Your task to perform on an android device: When is my next appointment? Image 0: 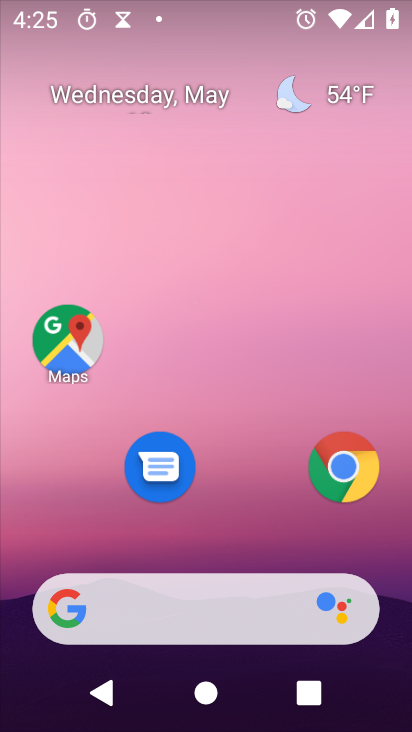
Step 0: drag from (279, 493) to (220, 26)
Your task to perform on an android device: When is my next appointment? Image 1: 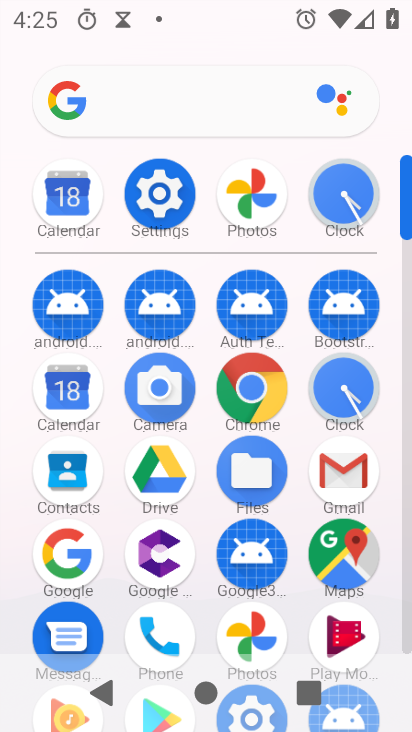
Step 1: click (85, 206)
Your task to perform on an android device: When is my next appointment? Image 2: 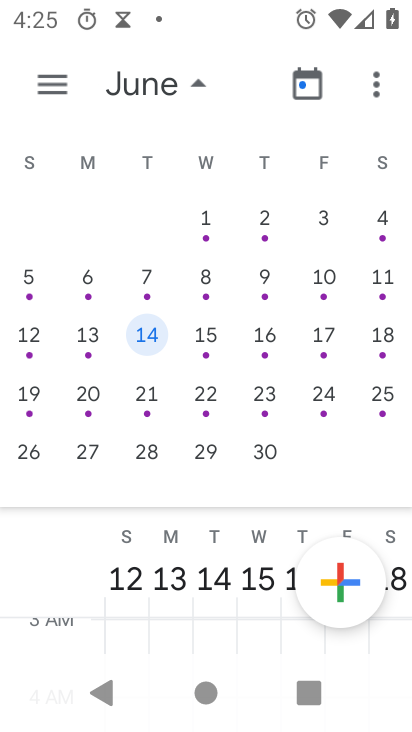
Step 2: click (154, 81)
Your task to perform on an android device: When is my next appointment? Image 3: 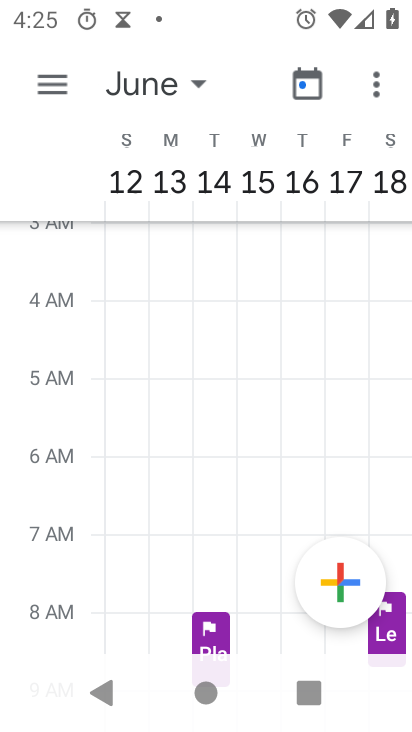
Step 3: click (154, 81)
Your task to perform on an android device: When is my next appointment? Image 4: 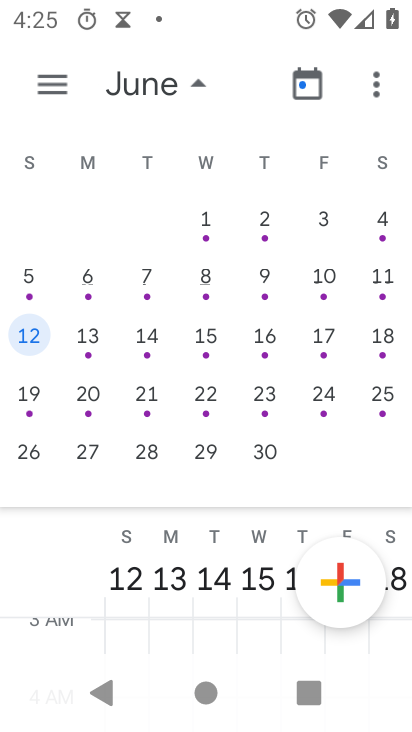
Step 4: drag from (138, 326) to (407, 296)
Your task to perform on an android device: When is my next appointment? Image 5: 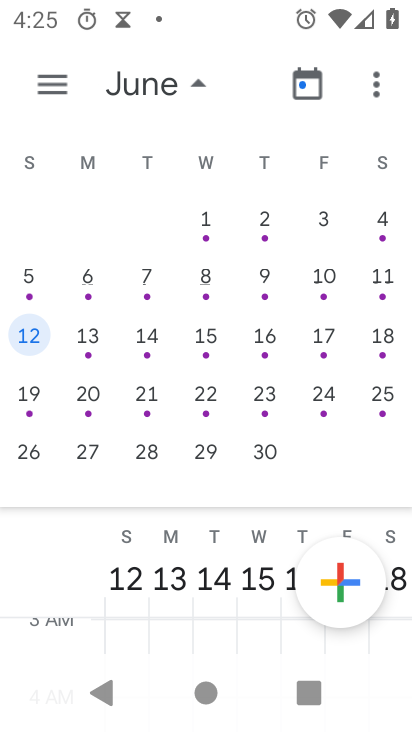
Step 5: drag from (106, 367) to (335, 292)
Your task to perform on an android device: When is my next appointment? Image 6: 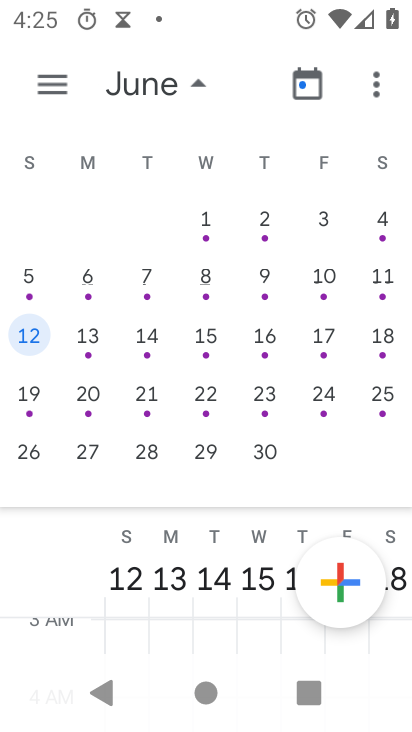
Step 6: drag from (64, 372) to (355, 325)
Your task to perform on an android device: When is my next appointment? Image 7: 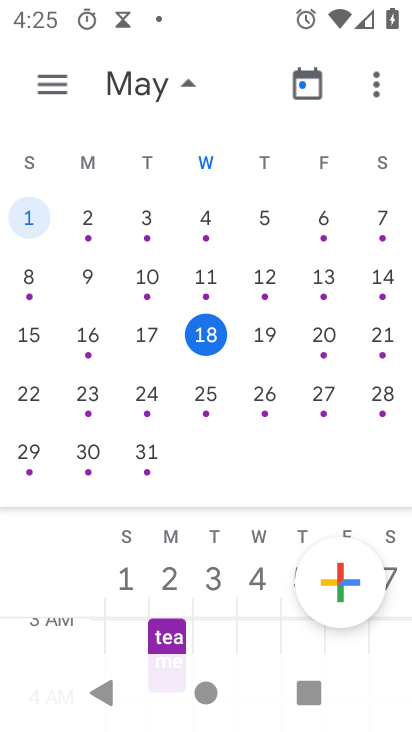
Step 7: click (221, 339)
Your task to perform on an android device: When is my next appointment? Image 8: 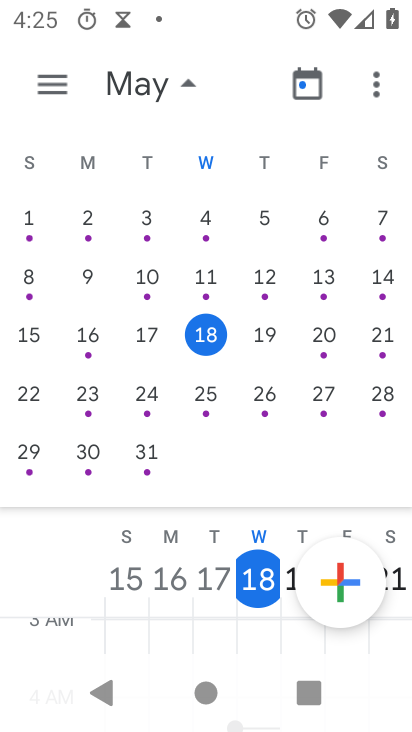
Step 8: click (63, 91)
Your task to perform on an android device: When is my next appointment? Image 9: 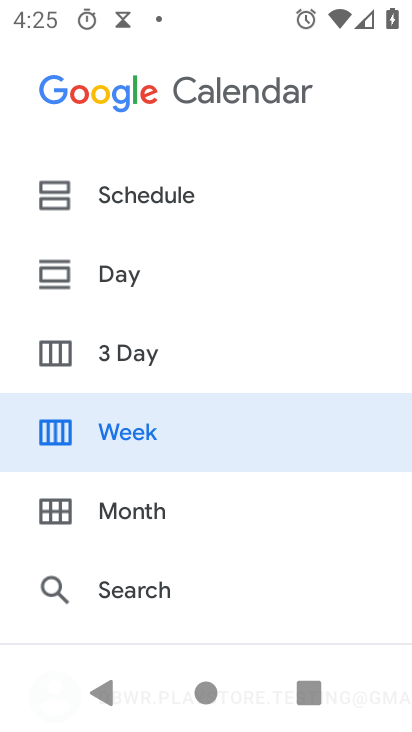
Step 9: click (101, 177)
Your task to perform on an android device: When is my next appointment? Image 10: 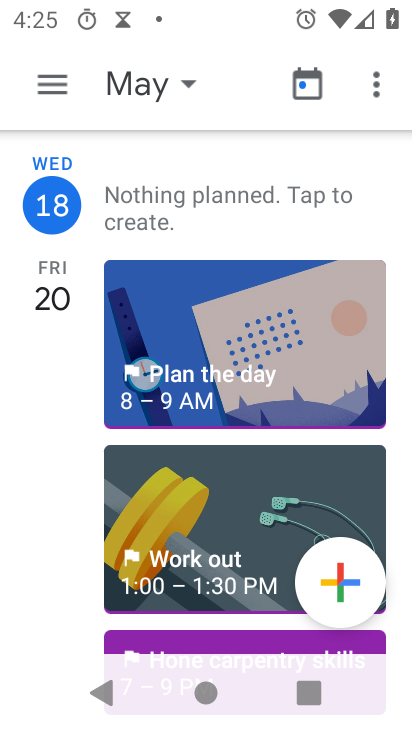
Step 10: task complete